Your task to perform on an android device: turn pop-ups on in chrome Image 0: 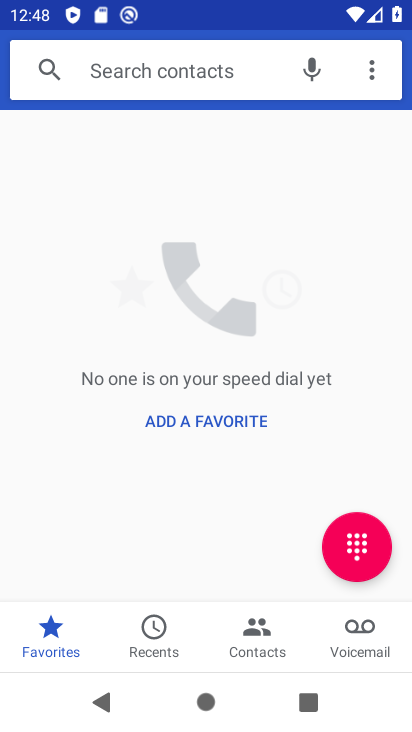
Step 0: press home button
Your task to perform on an android device: turn pop-ups on in chrome Image 1: 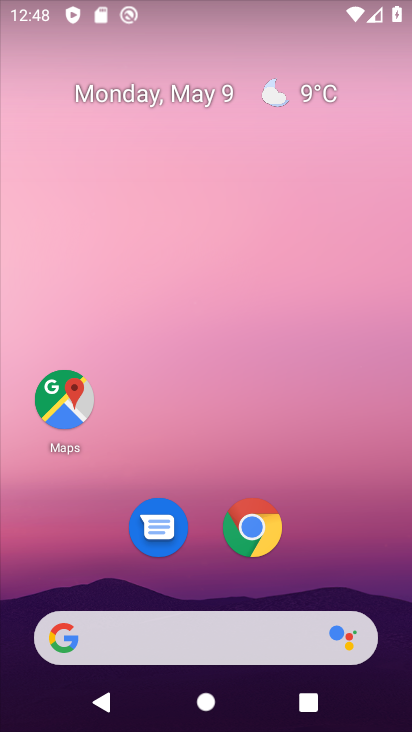
Step 1: click (255, 517)
Your task to perform on an android device: turn pop-ups on in chrome Image 2: 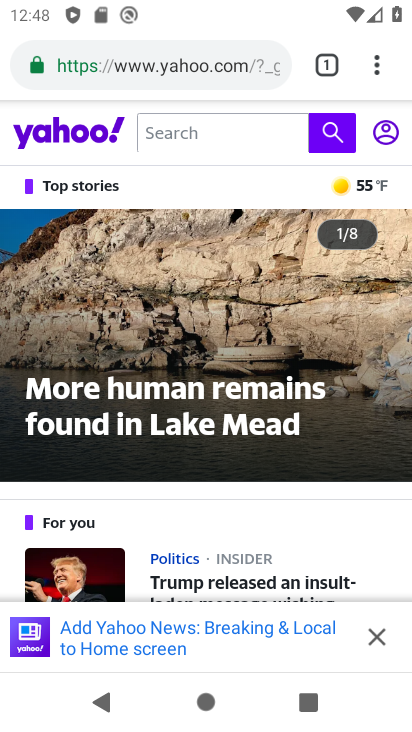
Step 2: click (379, 643)
Your task to perform on an android device: turn pop-ups on in chrome Image 3: 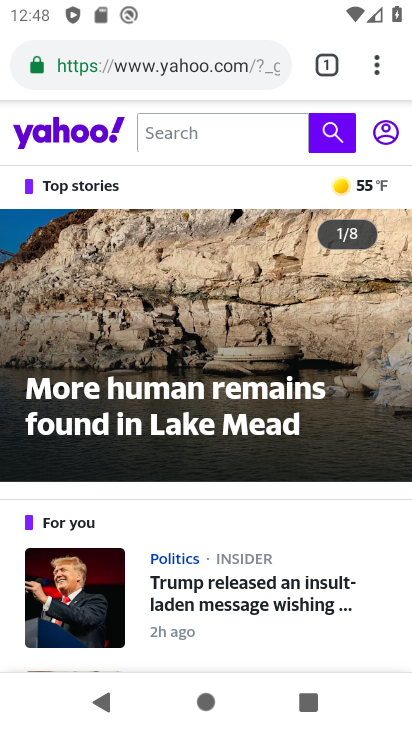
Step 3: click (379, 70)
Your task to perform on an android device: turn pop-ups on in chrome Image 4: 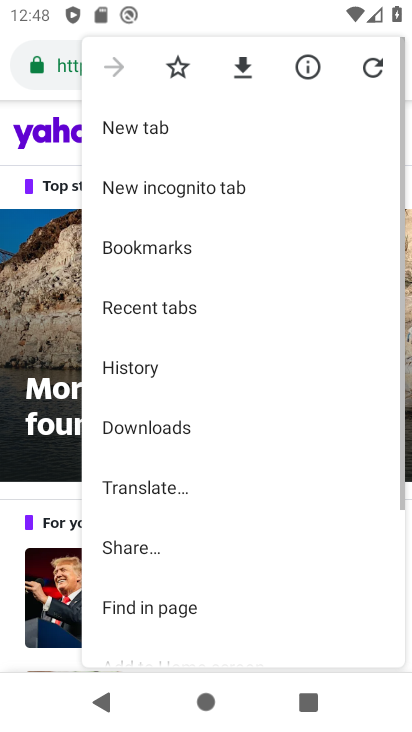
Step 4: drag from (156, 631) to (209, 328)
Your task to perform on an android device: turn pop-ups on in chrome Image 5: 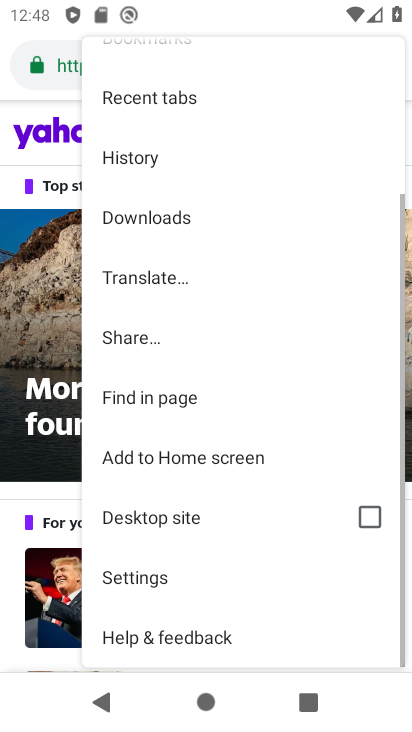
Step 5: click (162, 583)
Your task to perform on an android device: turn pop-ups on in chrome Image 6: 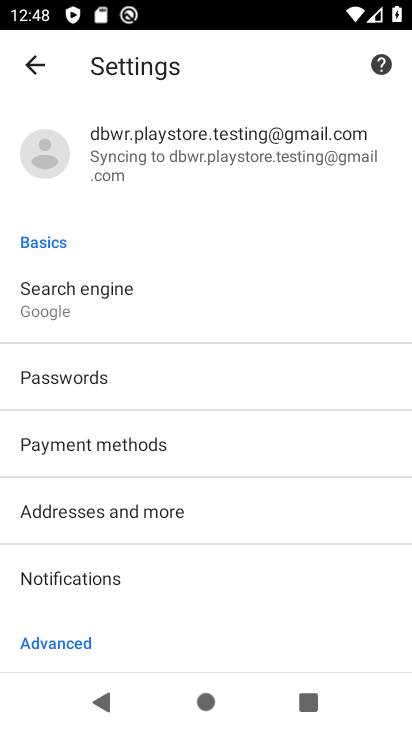
Step 6: drag from (135, 530) to (212, 181)
Your task to perform on an android device: turn pop-ups on in chrome Image 7: 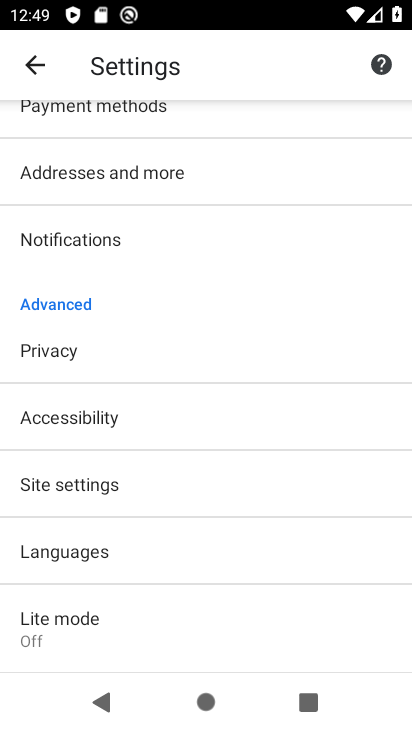
Step 7: click (128, 483)
Your task to perform on an android device: turn pop-ups on in chrome Image 8: 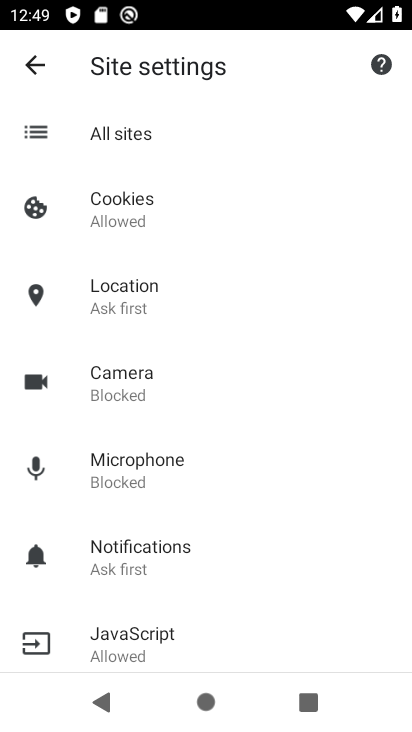
Step 8: drag from (157, 567) to (197, 220)
Your task to perform on an android device: turn pop-ups on in chrome Image 9: 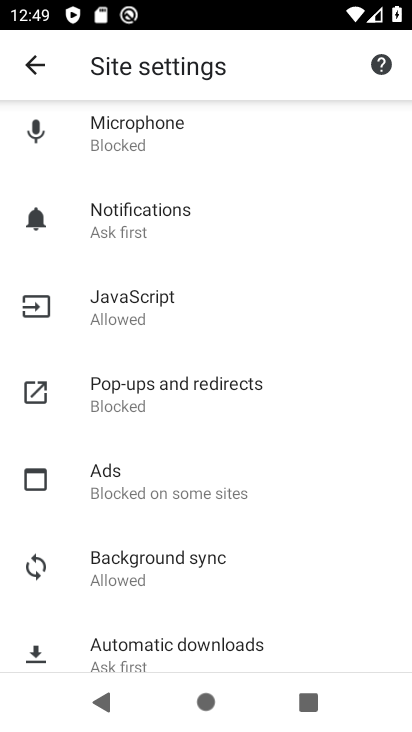
Step 9: click (182, 397)
Your task to perform on an android device: turn pop-ups on in chrome Image 10: 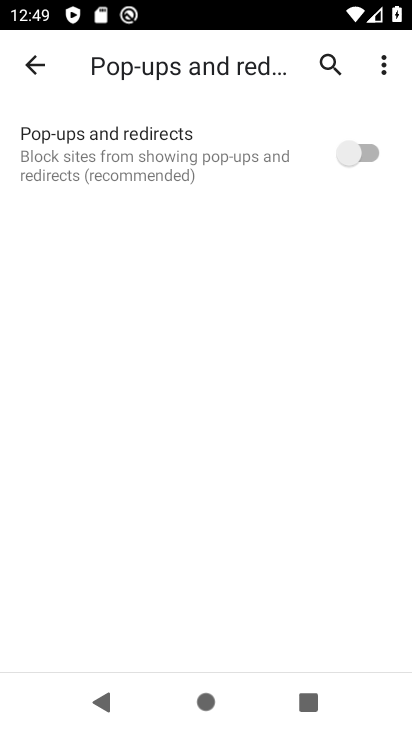
Step 10: click (369, 153)
Your task to perform on an android device: turn pop-ups on in chrome Image 11: 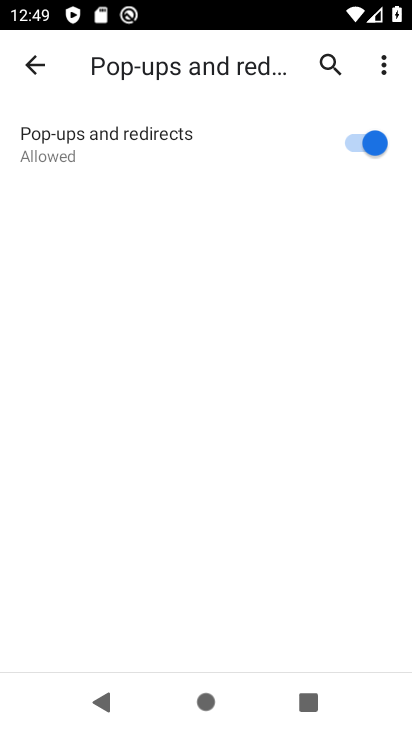
Step 11: task complete